Your task to perform on an android device: Open the map Image 0: 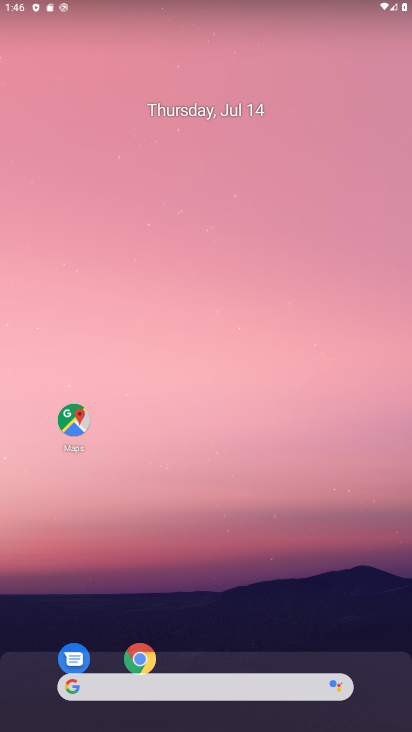
Step 0: click (65, 428)
Your task to perform on an android device: Open the map Image 1: 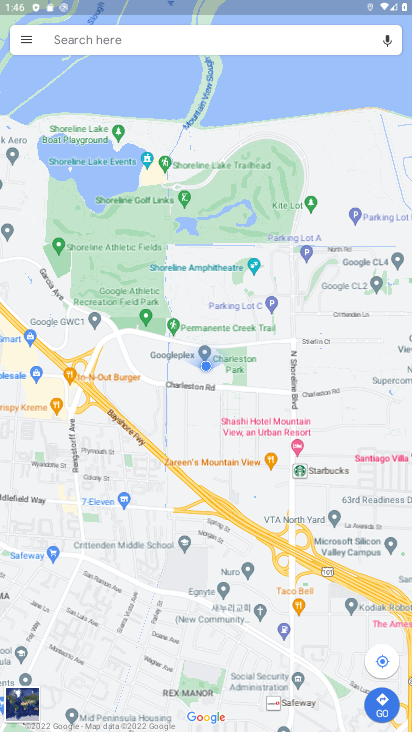
Step 1: task complete